Your task to perform on an android device: turn on bluetooth scan Image 0: 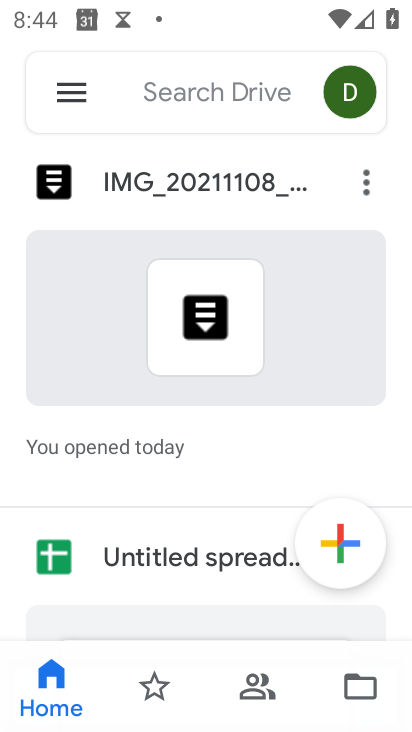
Step 0: press home button
Your task to perform on an android device: turn on bluetooth scan Image 1: 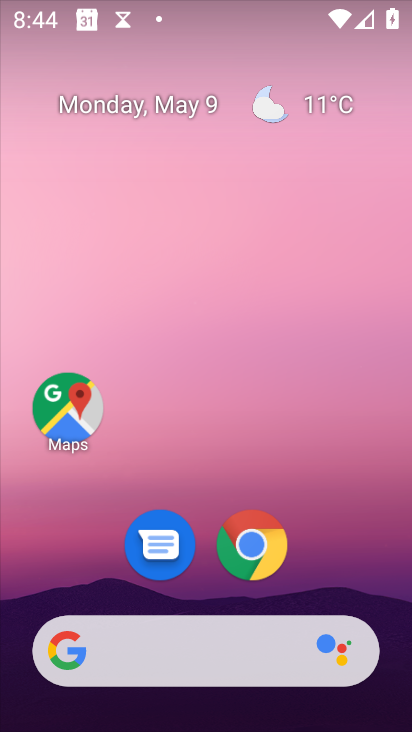
Step 1: drag from (208, 717) to (205, 221)
Your task to perform on an android device: turn on bluetooth scan Image 2: 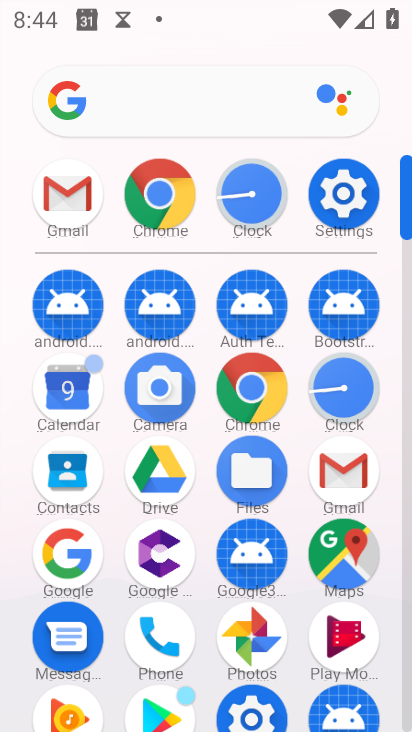
Step 2: click (349, 197)
Your task to perform on an android device: turn on bluetooth scan Image 3: 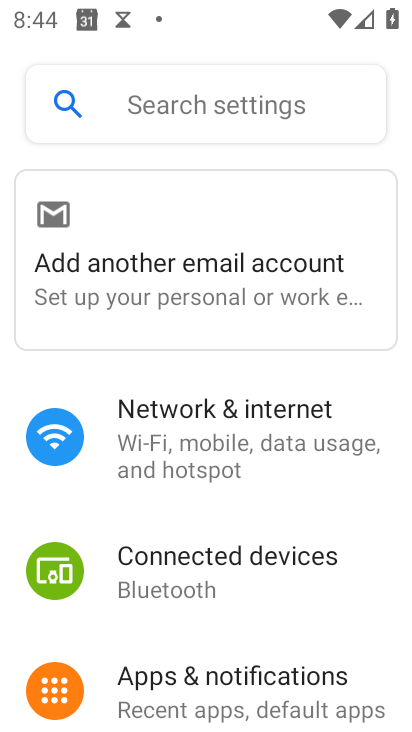
Step 3: drag from (226, 654) to (223, 368)
Your task to perform on an android device: turn on bluetooth scan Image 4: 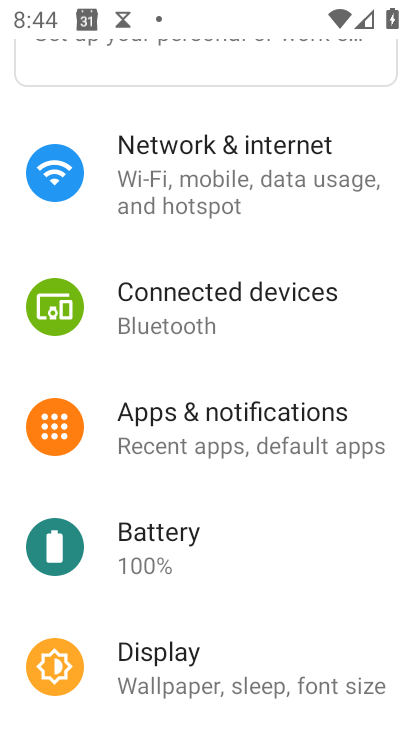
Step 4: drag from (249, 648) to (239, 365)
Your task to perform on an android device: turn on bluetooth scan Image 5: 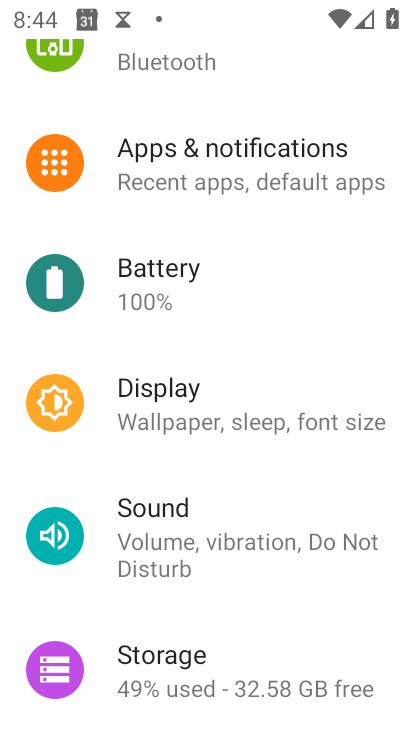
Step 5: drag from (196, 639) to (204, 356)
Your task to perform on an android device: turn on bluetooth scan Image 6: 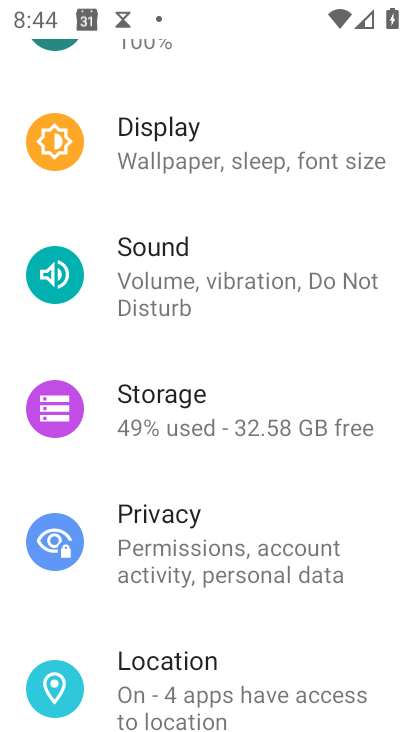
Step 6: click (188, 675)
Your task to perform on an android device: turn on bluetooth scan Image 7: 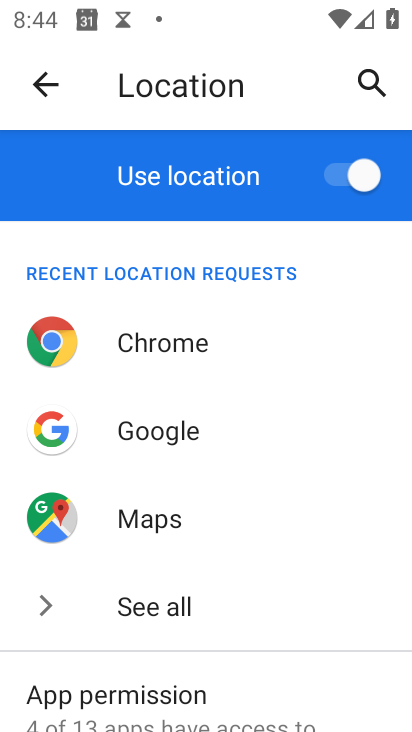
Step 7: drag from (211, 695) to (233, 404)
Your task to perform on an android device: turn on bluetooth scan Image 8: 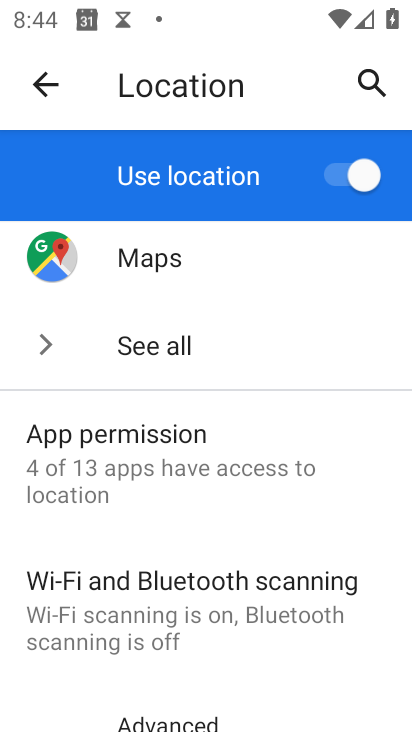
Step 8: click (175, 601)
Your task to perform on an android device: turn on bluetooth scan Image 9: 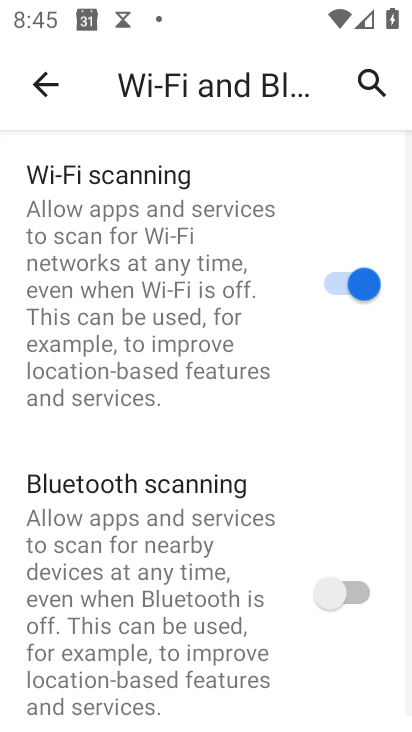
Step 9: click (358, 590)
Your task to perform on an android device: turn on bluetooth scan Image 10: 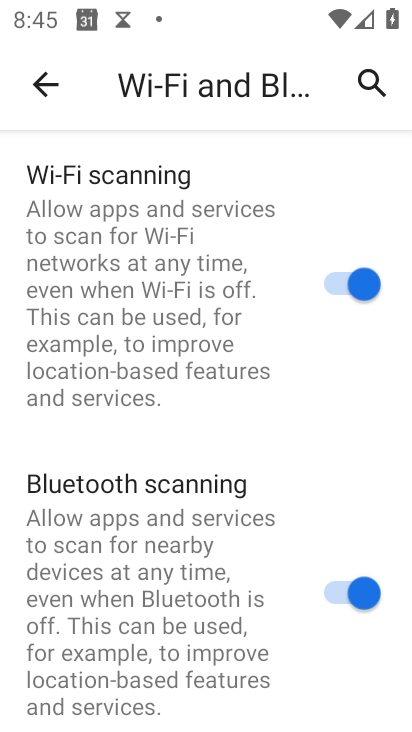
Step 10: task complete